Your task to perform on an android device: turn off priority inbox in the gmail app Image 0: 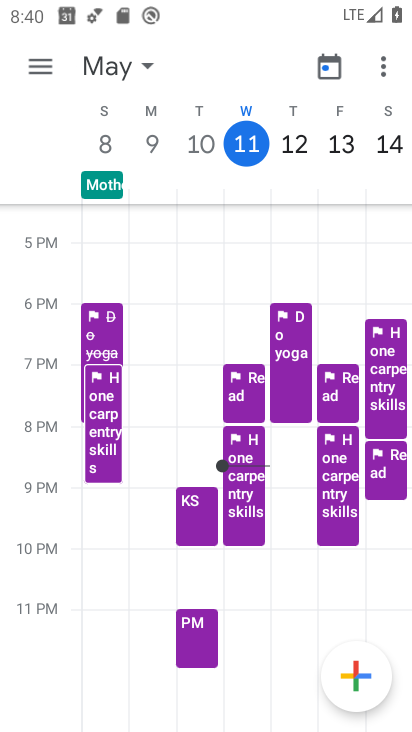
Step 0: press home button
Your task to perform on an android device: turn off priority inbox in the gmail app Image 1: 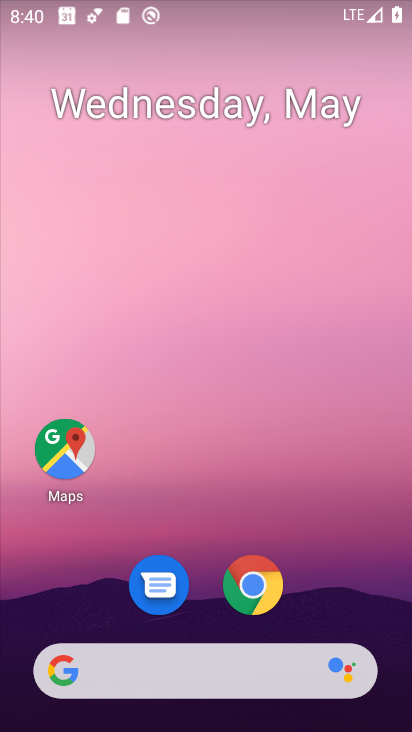
Step 1: drag from (307, 495) to (212, 64)
Your task to perform on an android device: turn off priority inbox in the gmail app Image 2: 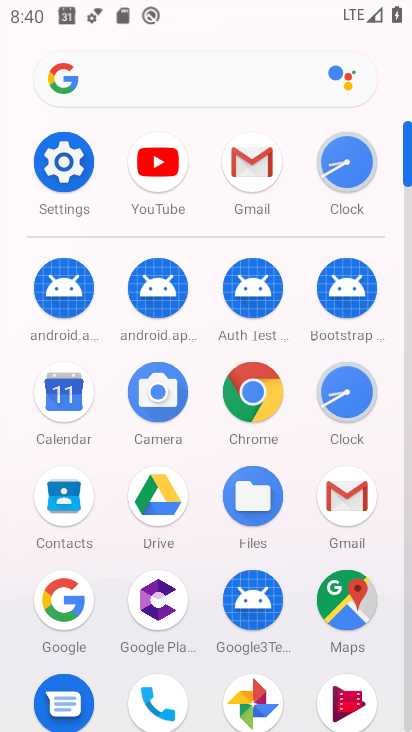
Step 2: click (236, 159)
Your task to perform on an android device: turn off priority inbox in the gmail app Image 3: 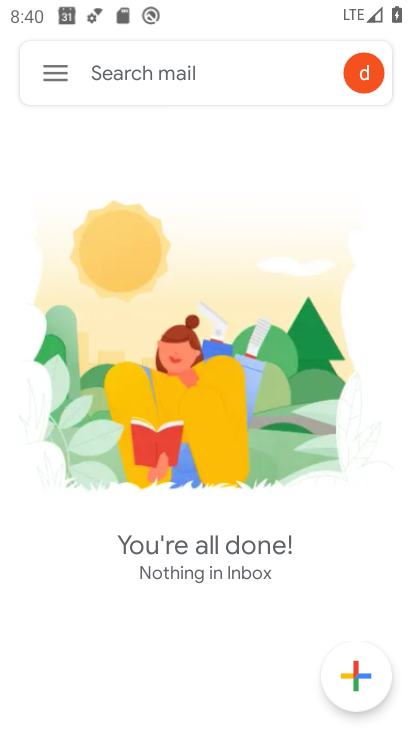
Step 3: click (59, 72)
Your task to perform on an android device: turn off priority inbox in the gmail app Image 4: 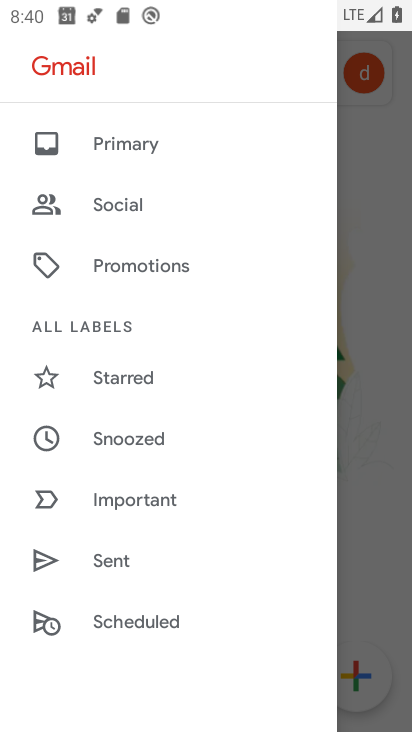
Step 4: drag from (151, 570) to (142, 87)
Your task to perform on an android device: turn off priority inbox in the gmail app Image 5: 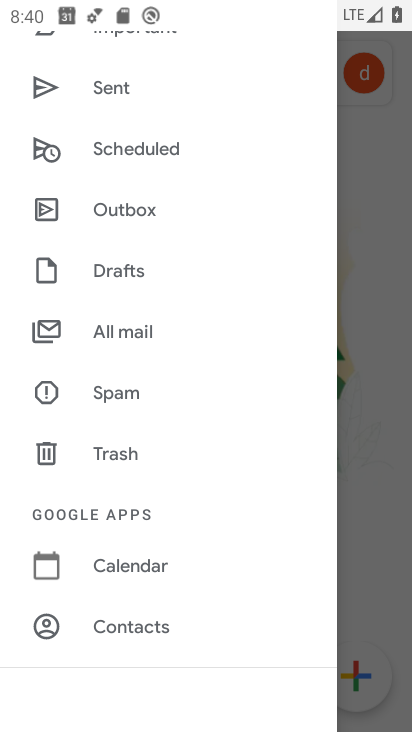
Step 5: drag from (167, 527) to (183, 252)
Your task to perform on an android device: turn off priority inbox in the gmail app Image 6: 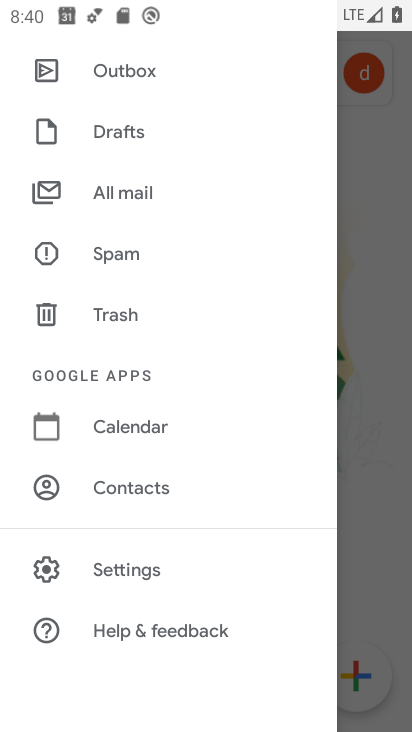
Step 6: click (134, 555)
Your task to perform on an android device: turn off priority inbox in the gmail app Image 7: 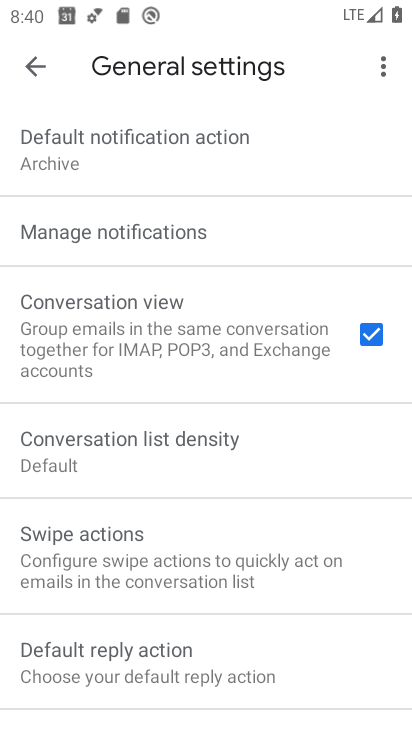
Step 7: click (32, 57)
Your task to perform on an android device: turn off priority inbox in the gmail app Image 8: 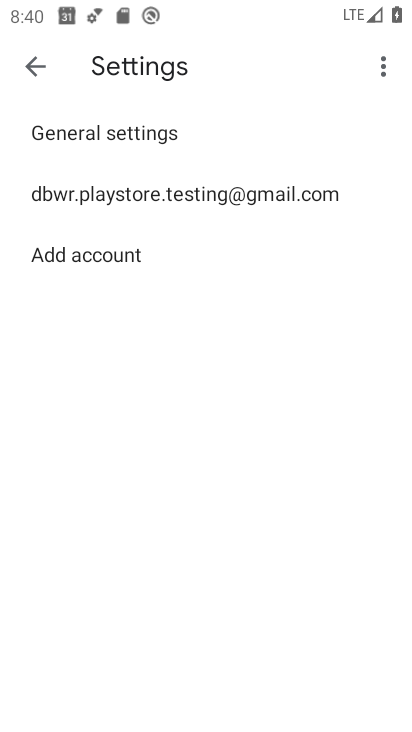
Step 8: click (92, 195)
Your task to perform on an android device: turn off priority inbox in the gmail app Image 9: 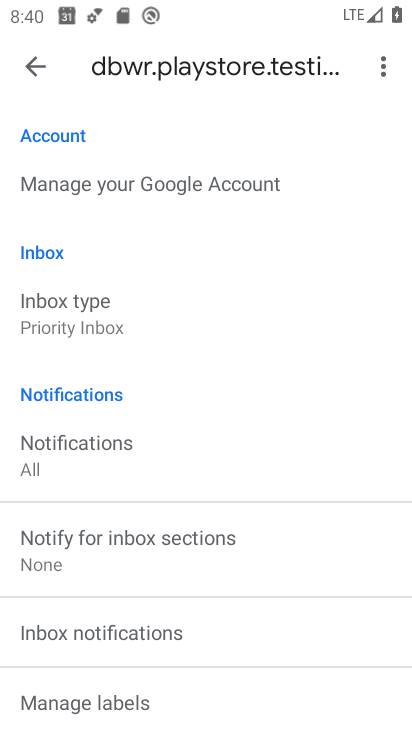
Step 9: click (97, 294)
Your task to perform on an android device: turn off priority inbox in the gmail app Image 10: 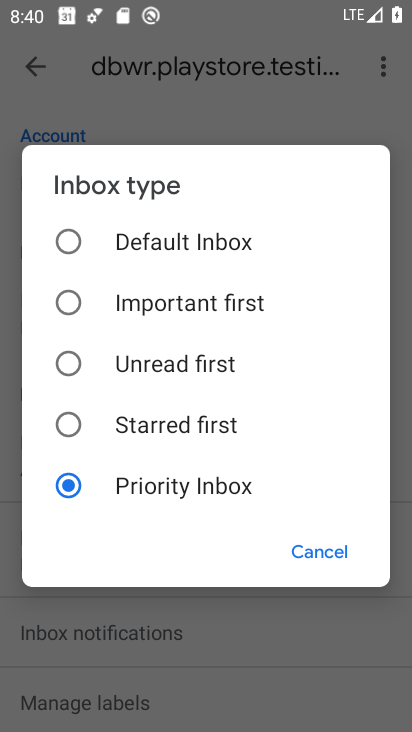
Step 10: click (58, 232)
Your task to perform on an android device: turn off priority inbox in the gmail app Image 11: 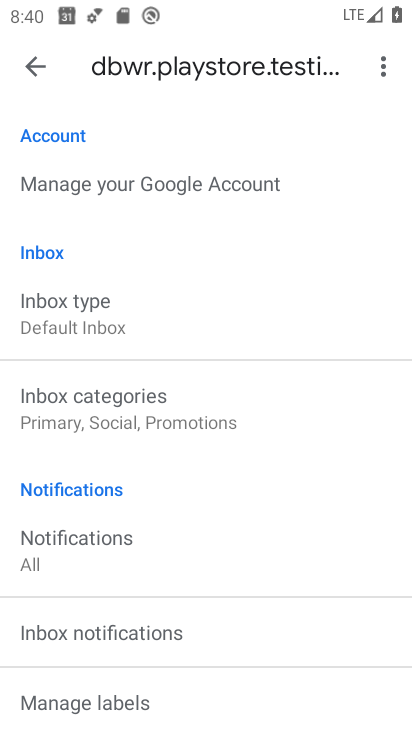
Step 11: task complete